Your task to perform on an android device: Open the calendar and show me this week's events Image 0: 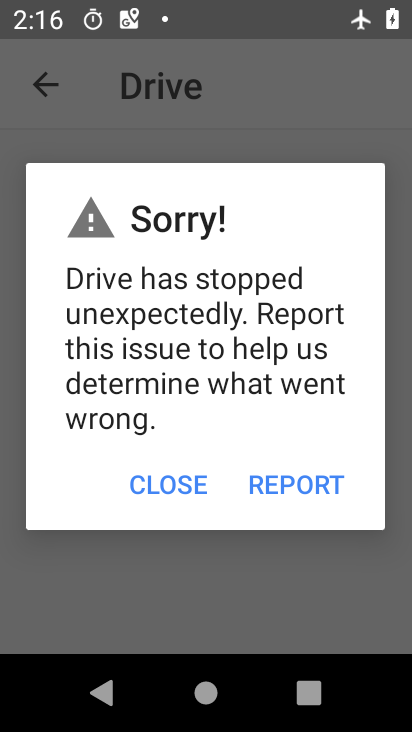
Step 0: drag from (406, 519) to (357, 111)
Your task to perform on an android device: Open the calendar and show me this week's events Image 1: 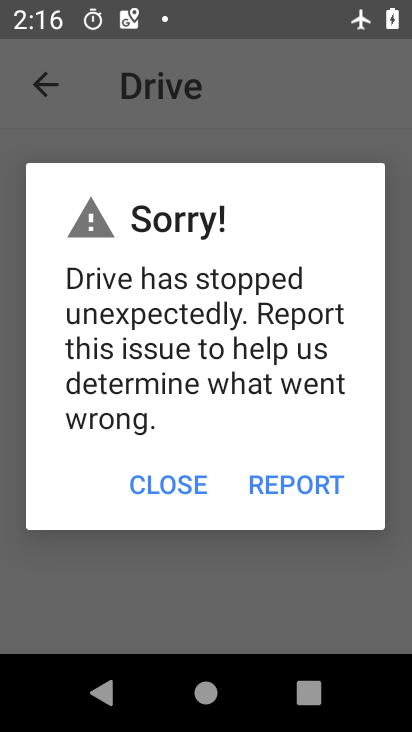
Step 1: press home button
Your task to perform on an android device: Open the calendar and show me this week's events Image 2: 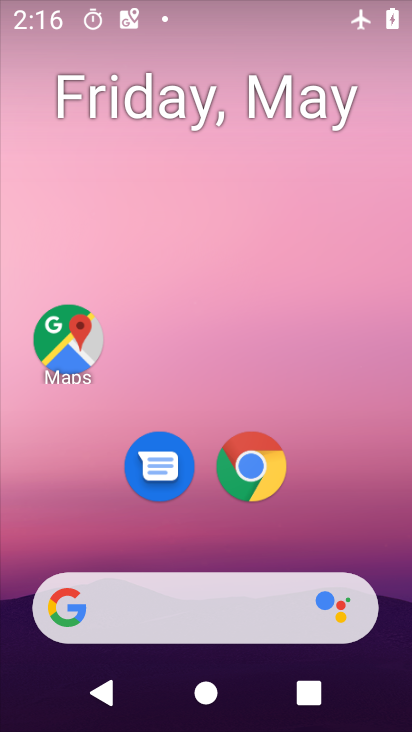
Step 2: drag from (310, 591) to (343, 106)
Your task to perform on an android device: Open the calendar and show me this week's events Image 3: 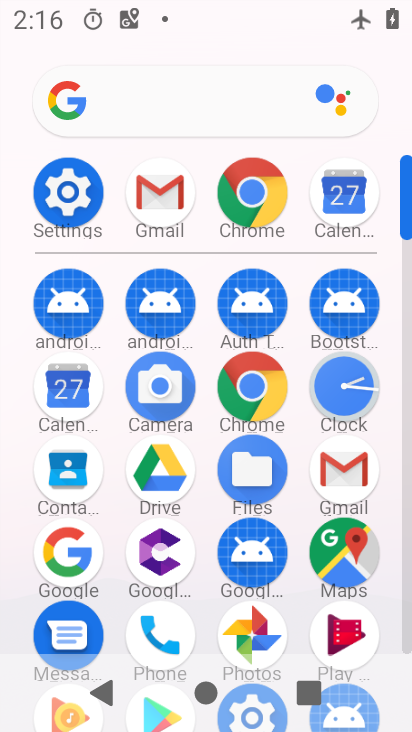
Step 3: click (77, 399)
Your task to perform on an android device: Open the calendar and show me this week's events Image 4: 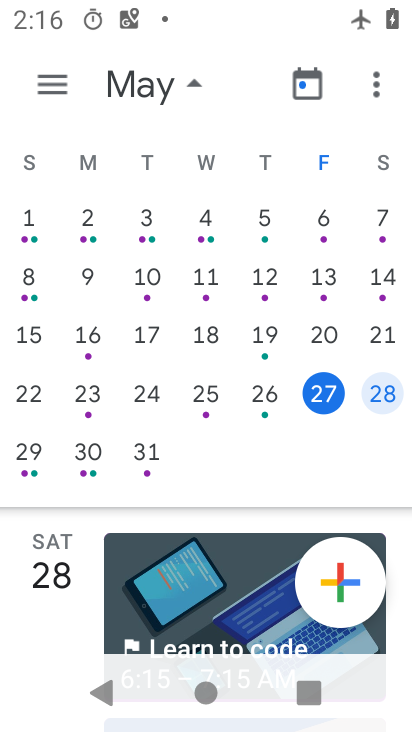
Step 4: click (26, 453)
Your task to perform on an android device: Open the calendar and show me this week's events Image 5: 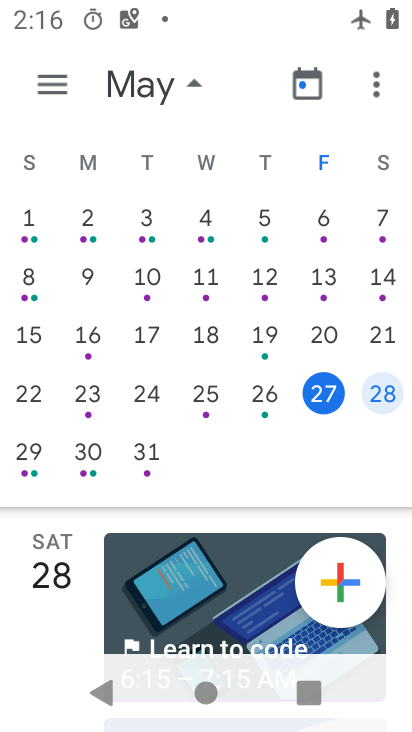
Step 5: task complete